Your task to perform on an android device: turn on improve location accuracy Image 0: 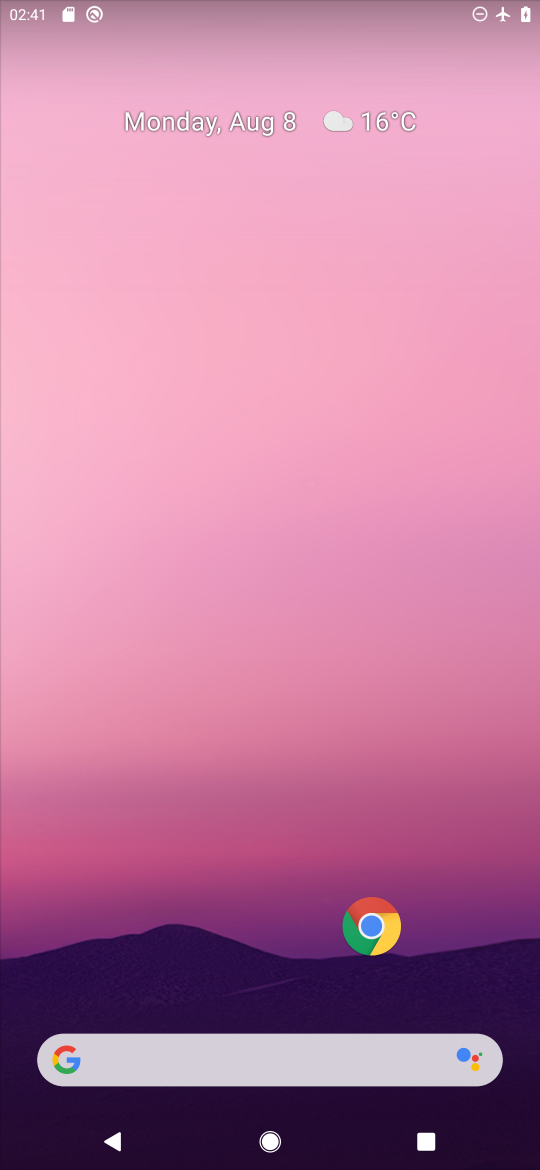
Step 0: drag from (159, 1043) to (190, 478)
Your task to perform on an android device: turn on improve location accuracy Image 1: 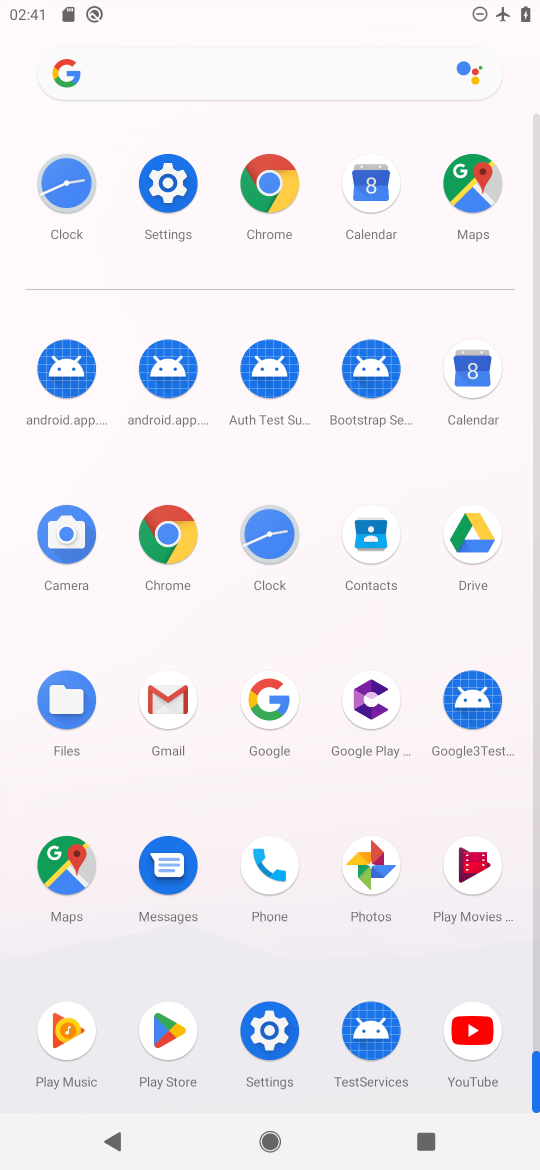
Step 1: click (158, 195)
Your task to perform on an android device: turn on improve location accuracy Image 2: 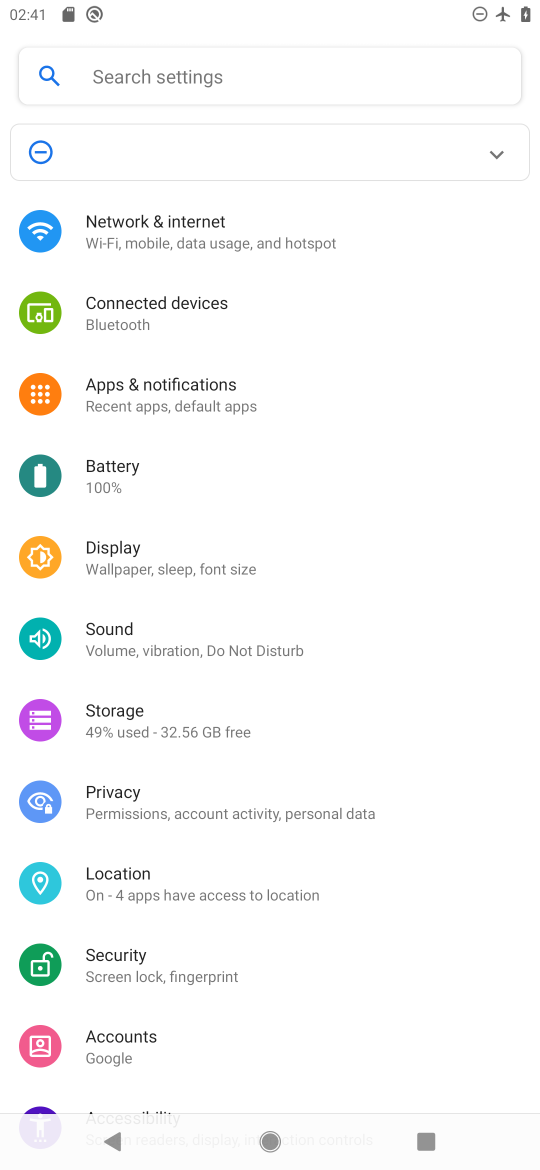
Step 2: drag from (169, 903) to (310, 298)
Your task to perform on an android device: turn on improve location accuracy Image 3: 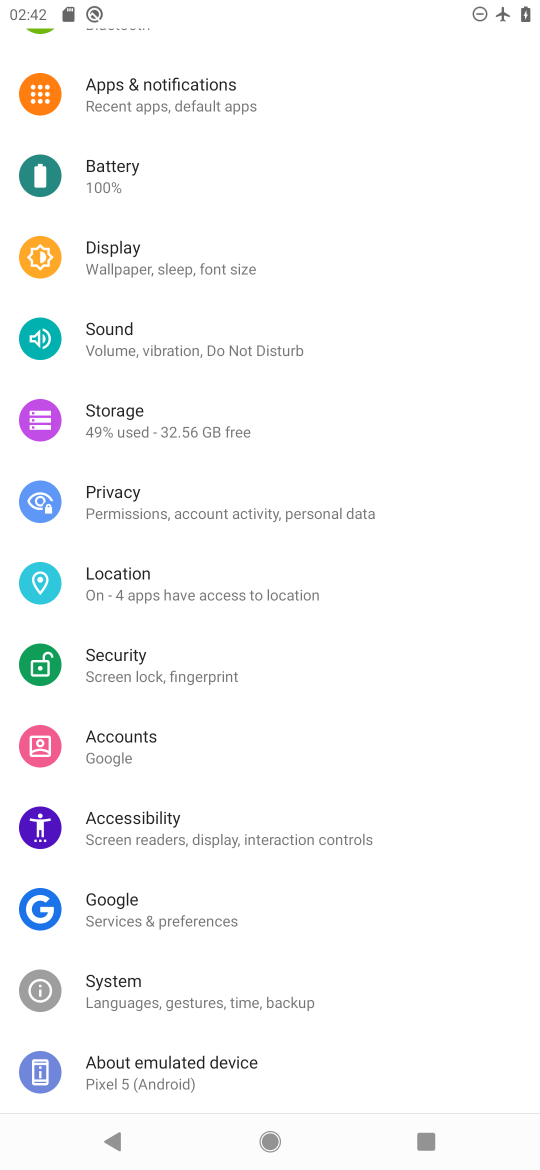
Step 3: click (188, 573)
Your task to perform on an android device: turn on improve location accuracy Image 4: 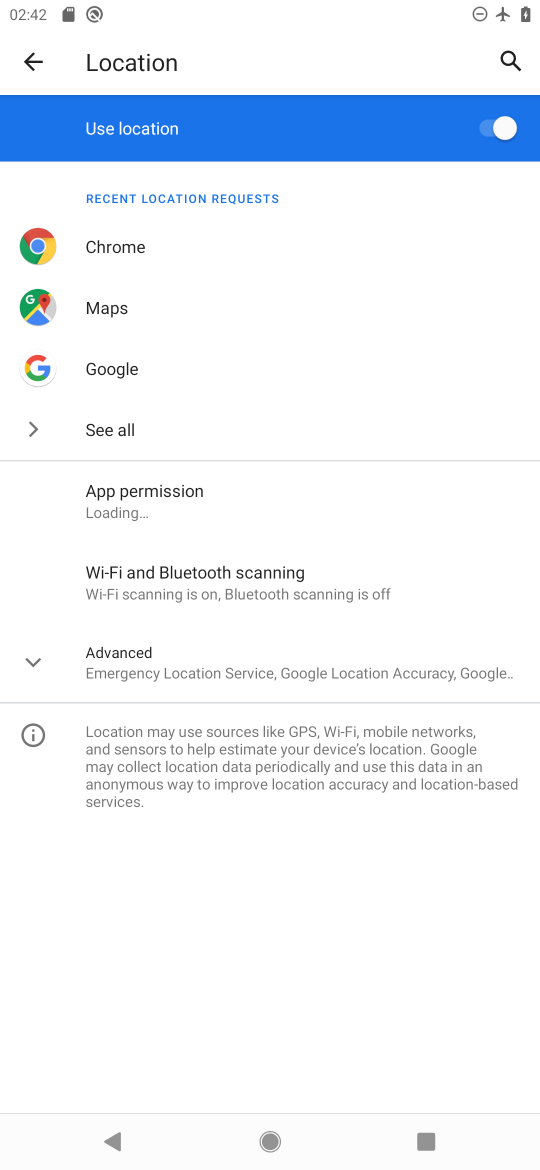
Step 4: click (205, 644)
Your task to perform on an android device: turn on improve location accuracy Image 5: 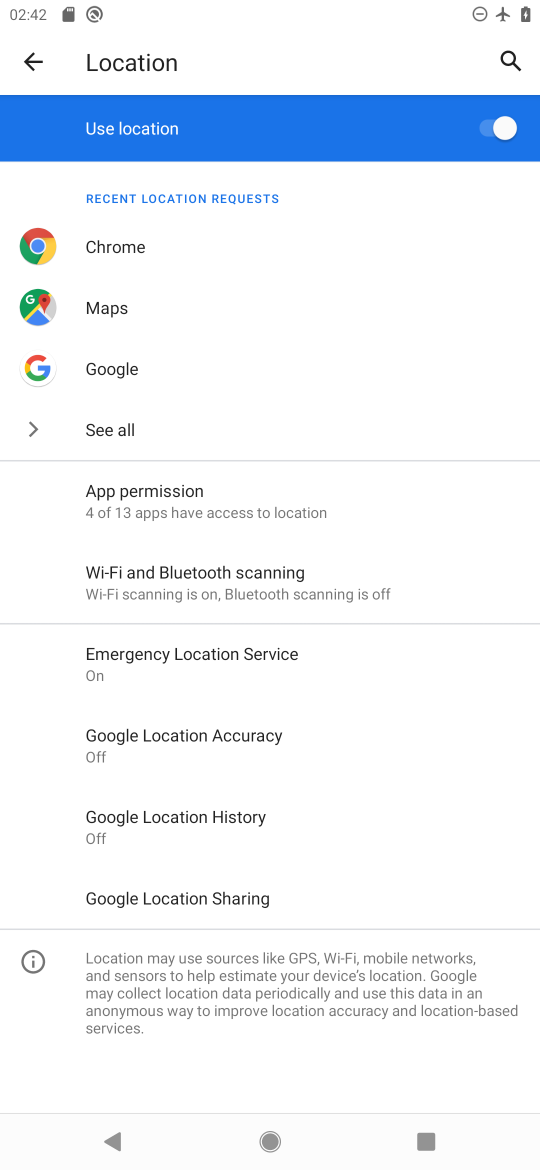
Step 5: click (272, 741)
Your task to perform on an android device: turn on improve location accuracy Image 6: 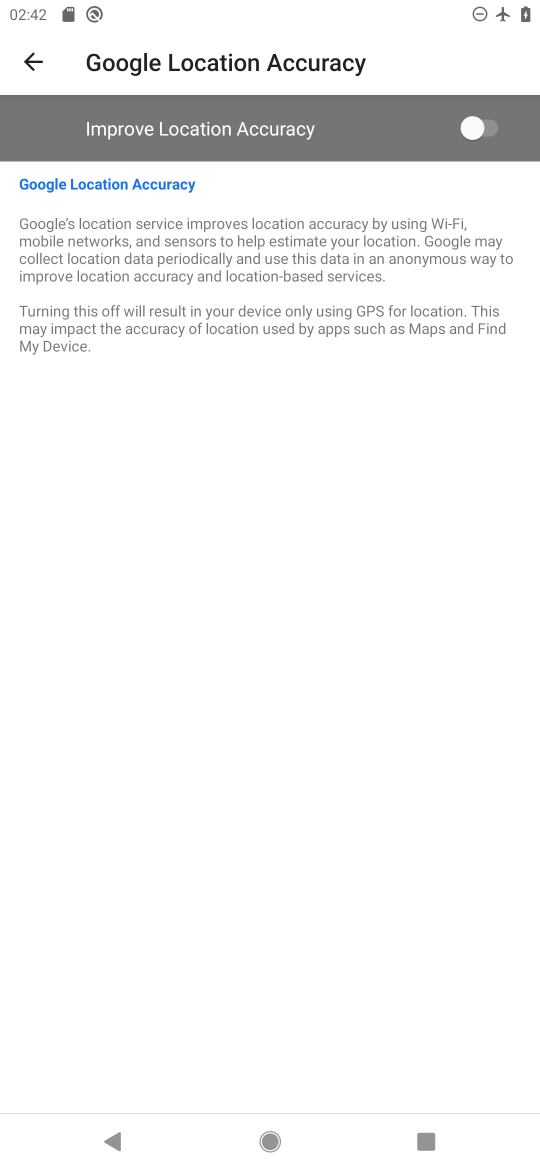
Step 6: click (466, 118)
Your task to perform on an android device: turn on improve location accuracy Image 7: 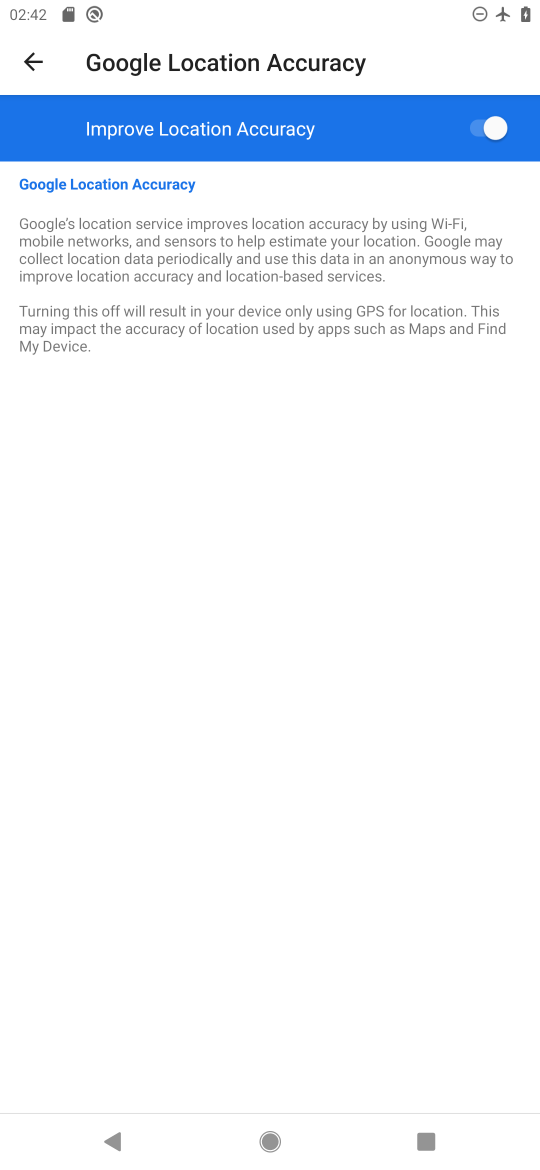
Step 7: task complete